Your task to perform on an android device: Turn on the flashlight Image 0: 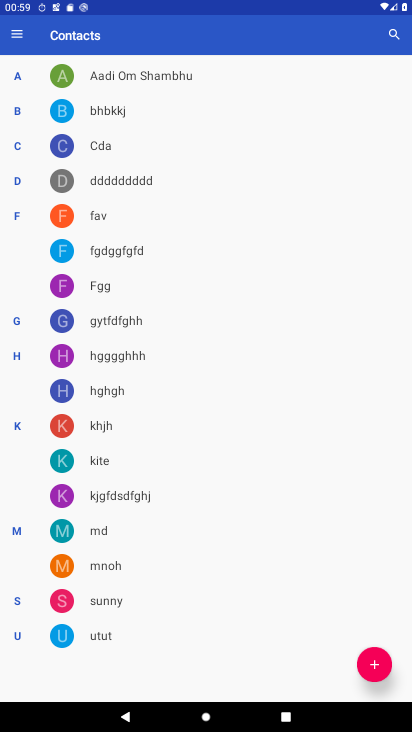
Step 0: press home button
Your task to perform on an android device: Turn on the flashlight Image 1: 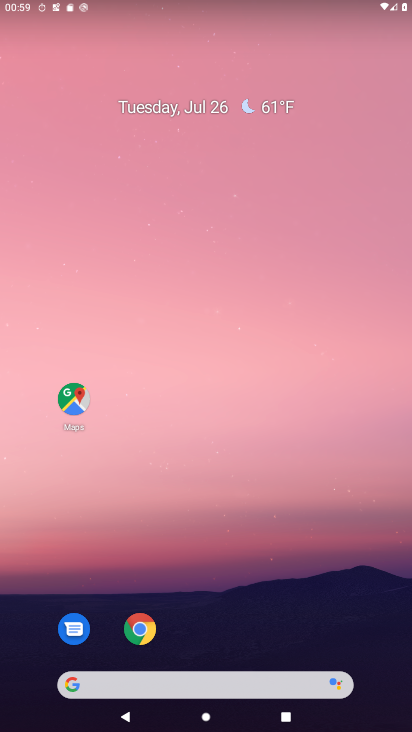
Step 1: drag from (183, 648) to (191, 182)
Your task to perform on an android device: Turn on the flashlight Image 2: 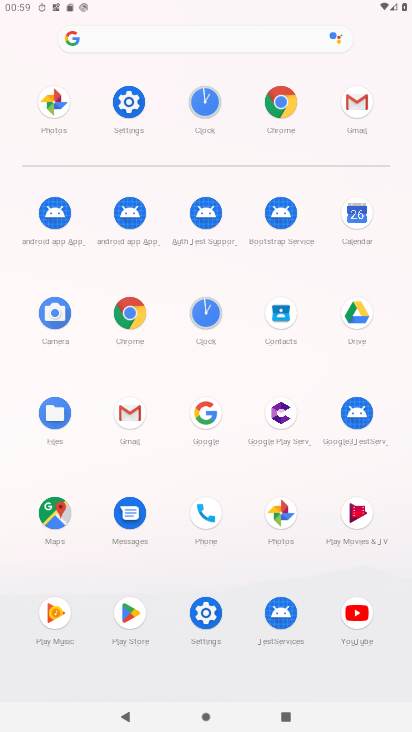
Step 2: click (131, 98)
Your task to perform on an android device: Turn on the flashlight Image 3: 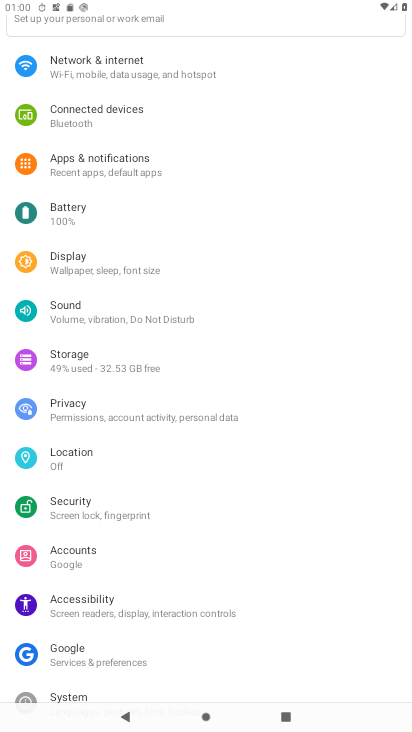
Step 3: task complete